Your task to perform on an android device: Open settings Image 0: 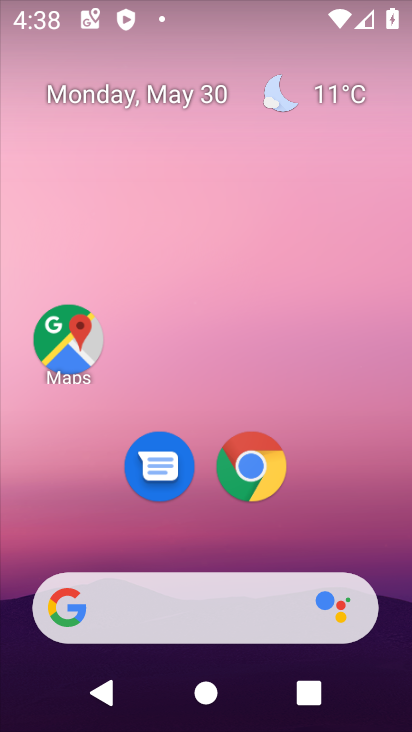
Step 0: drag from (367, 511) to (299, 3)
Your task to perform on an android device: Open settings Image 1: 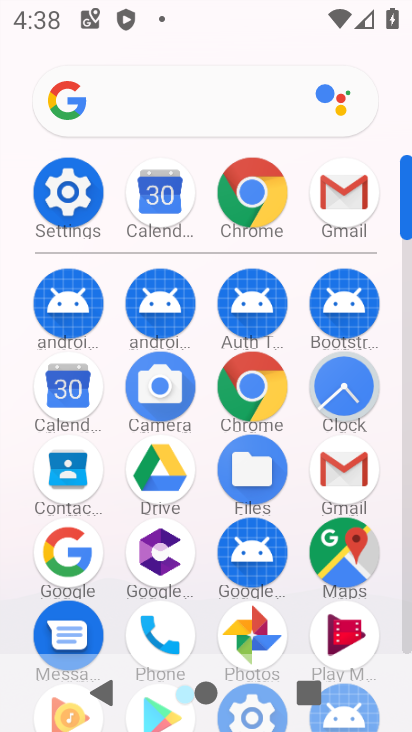
Step 1: click (53, 203)
Your task to perform on an android device: Open settings Image 2: 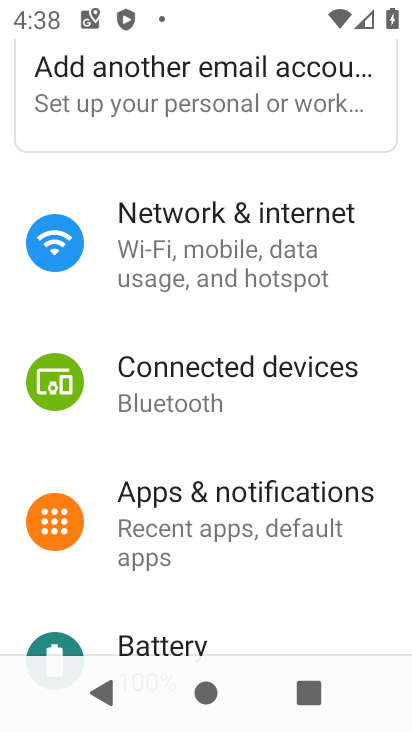
Step 2: task complete